Your task to perform on an android device: Go to Amazon Image 0: 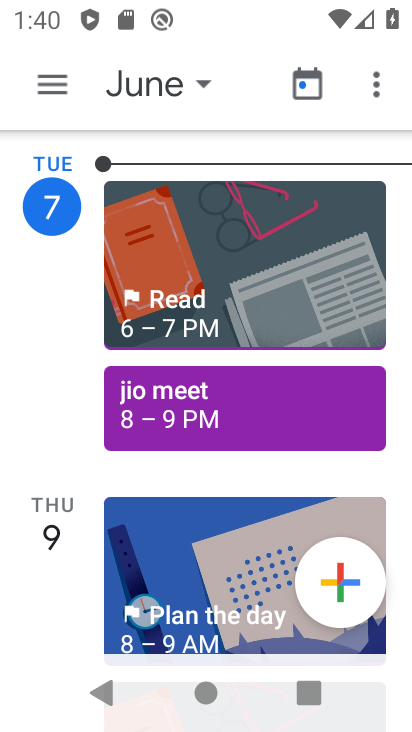
Step 0: press home button
Your task to perform on an android device: Go to Amazon Image 1: 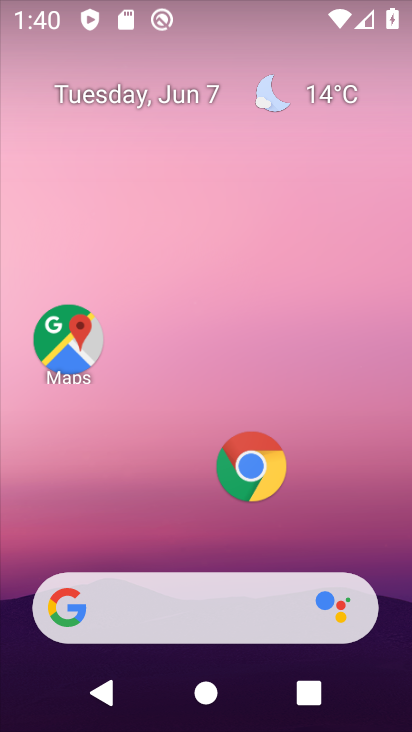
Step 1: click (248, 482)
Your task to perform on an android device: Go to Amazon Image 2: 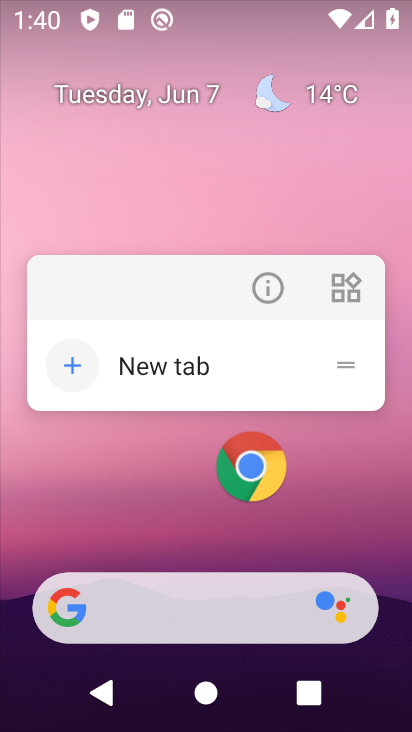
Step 2: click (271, 490)
Your task to perform on an android device: Go to Amazon Image 3: 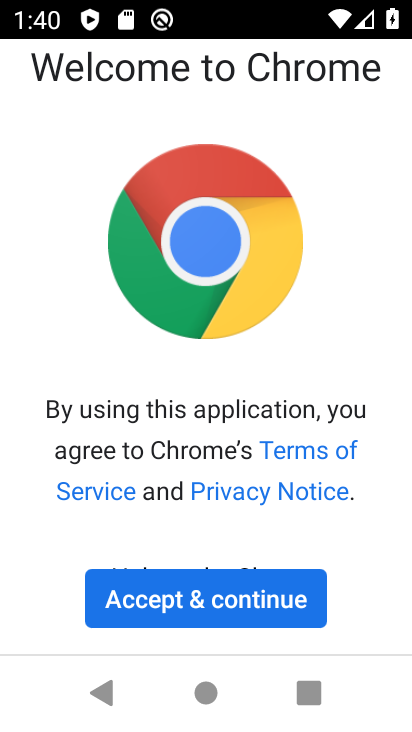
Step 3: click (200, 611)
Your task to perform on an android device: Go to Amazon Image 4: 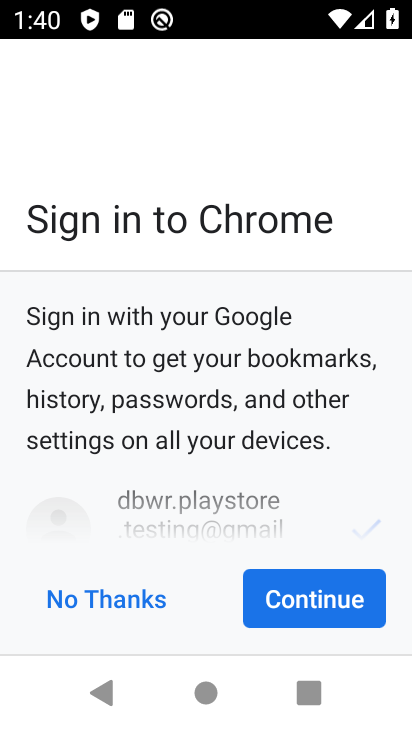
Step 4: click (322, 612)
Your task to perform on an android device: Go to Amazon Image 5: 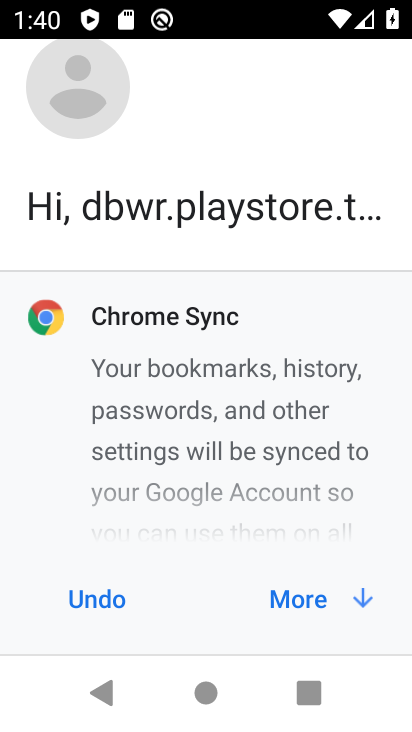
Step 5: click (319, 610)
Your task to perform on an android device: Go to Amazon Image 6: 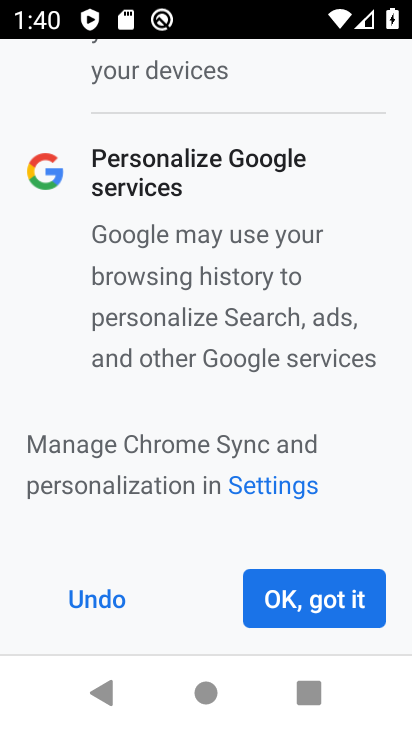
Step 6: click (319, 610)
Your task to perform on an android device: Go to Amazon Image 7: 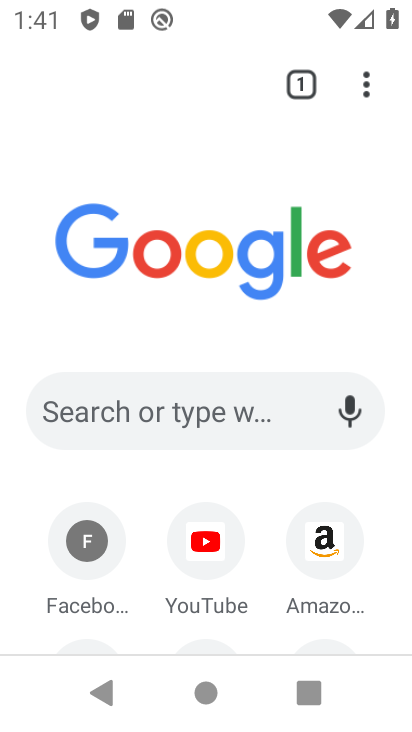
Step 7: click (333, 547)
Your task to perform on an android device: Go to Amazon Image 8: 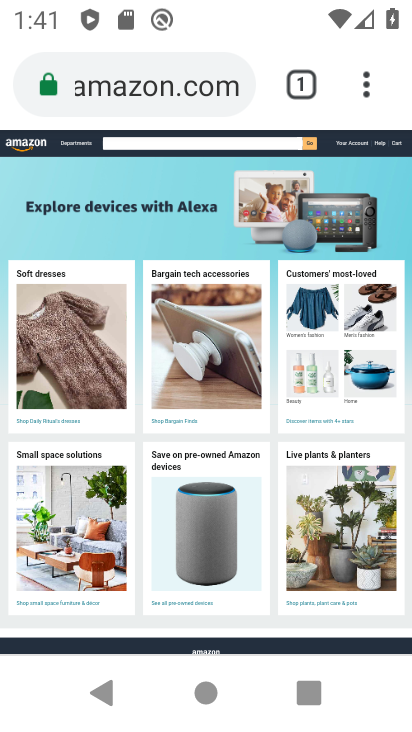
Step 8: task complete